Your task to perform on an android device: turn notification dots on Image 0: 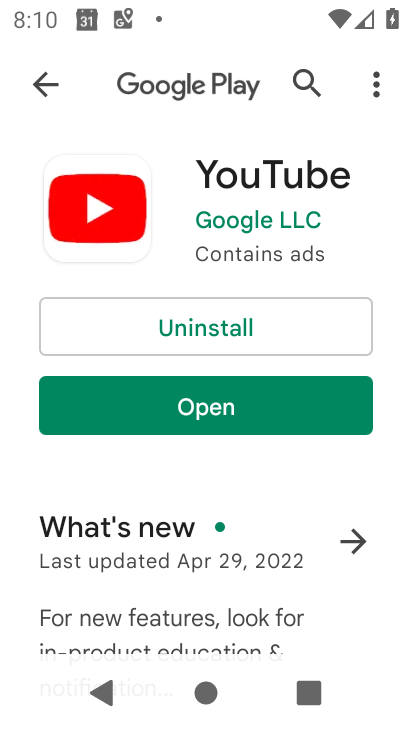
Step 0: press home button
Your task to perform on an android device: turn notification dots on Image 1: 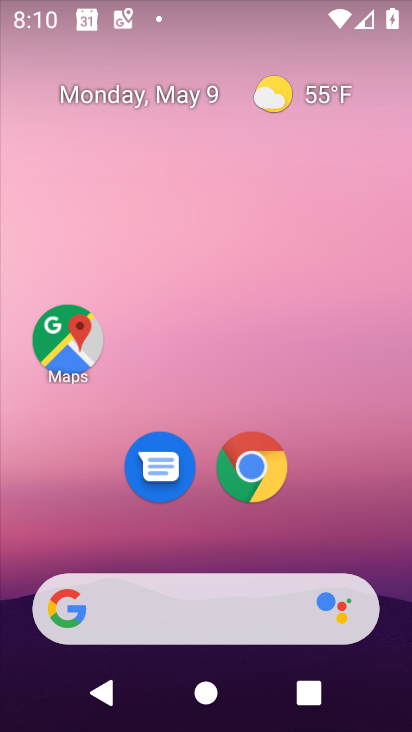
Step 1: drag from (350, 545) to (298, 5)
Your task to perform on an android device: turn notification dots on Image 2: 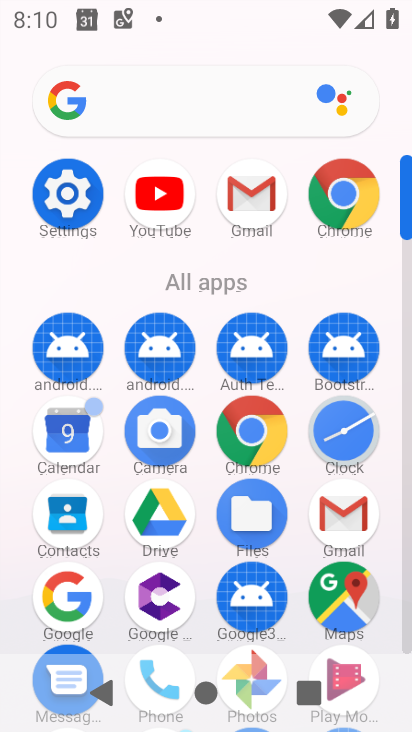
Step 2: click (66, 197)
Your task to perform on an android device: turn notification dots on Image 3: 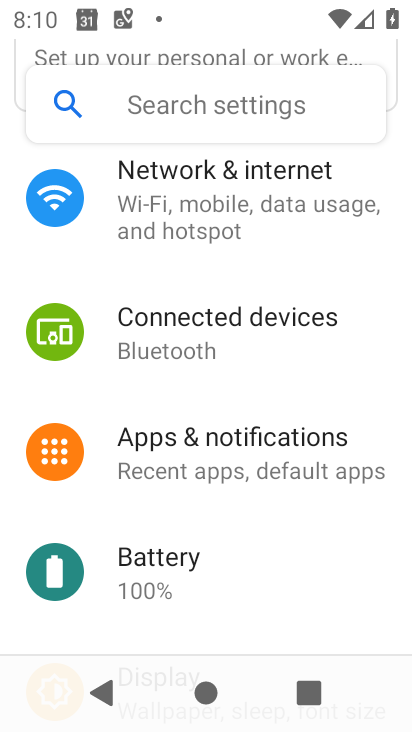
Step 3: click (277, 443)
Your task to perform on an android device: turn notification dots on Image 4: 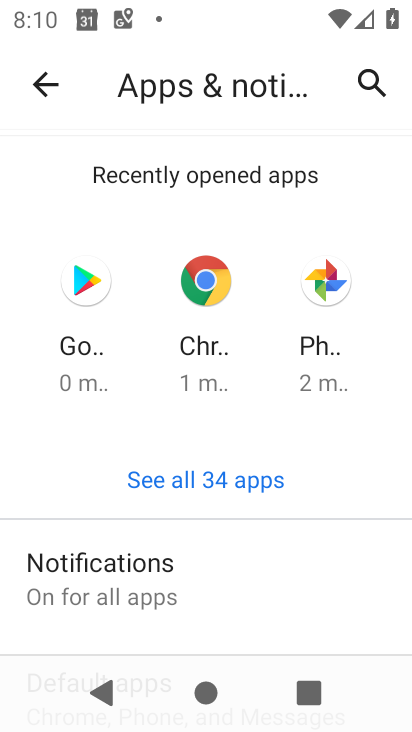
Step 4: click (109, 565)
Your task to perform on an android device: turn notification dots on Image 5: 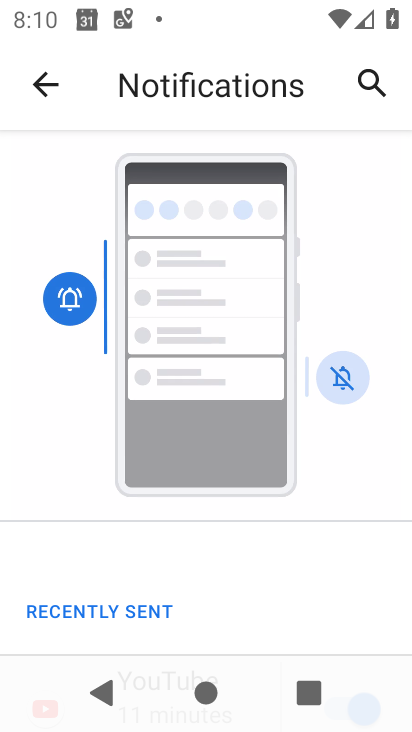
Step 5: drag from (218, 585) to (182, 136)
Your task to perform on an android device: turn notification dots on Image 6: 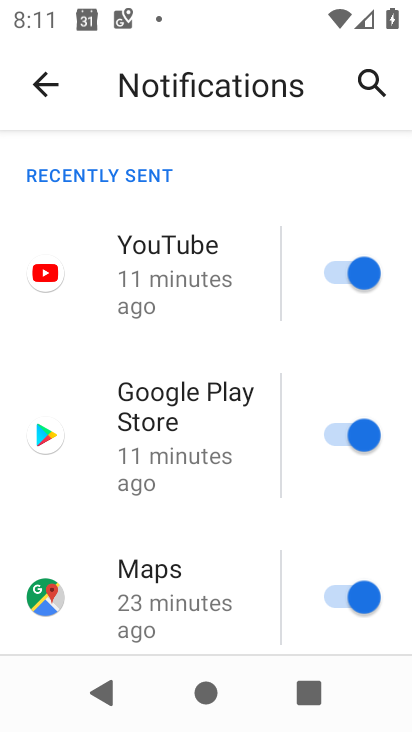
Step 6: drag from (170, 495) to (165, 184)
Your task to perform on an android device: turn notification dots on Image 7: 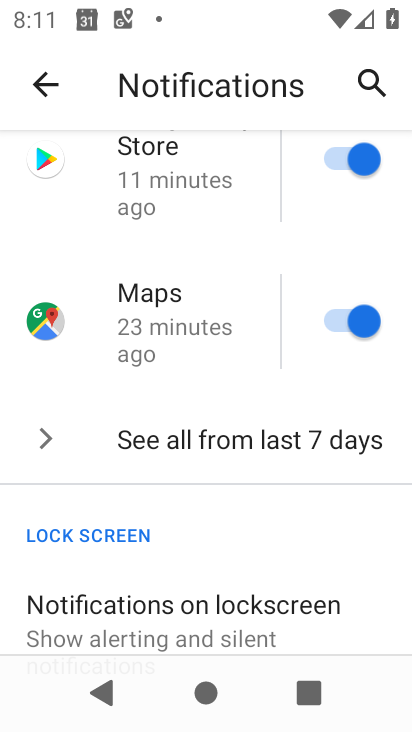
Step 7: drag from (175, 515) to (164, 211)
Your task to perform on an android device: turn notification dots on Image 8: 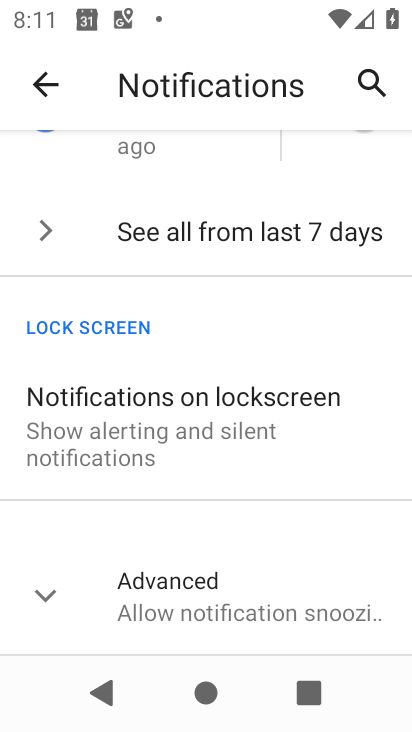
Step 8: click (36, 605)
Your task to perform on an android device: turn notification dots on Image 9: 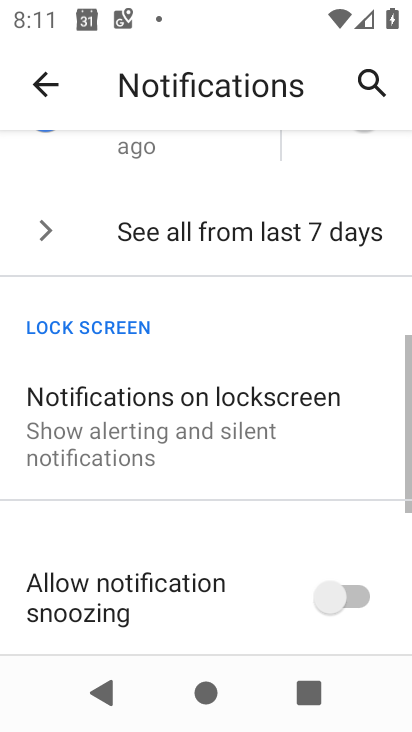
Step 9: task complete